Your task to perform on an android device: Is it going to rain this weekend? Image 0: 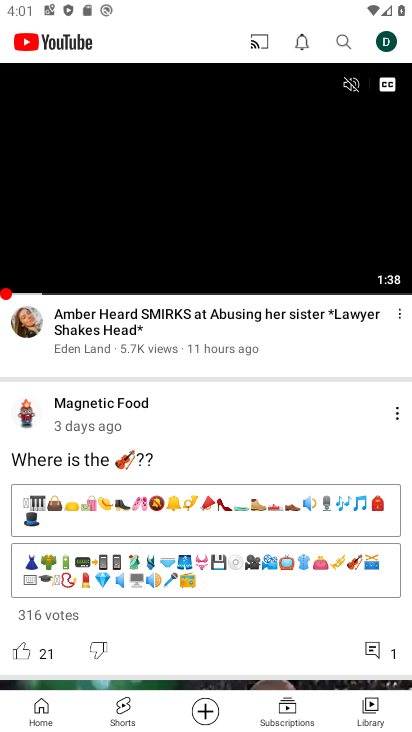
Step 0: press home button
Your task to perform on an android device: Is it going to rain this weekend? Image 1: 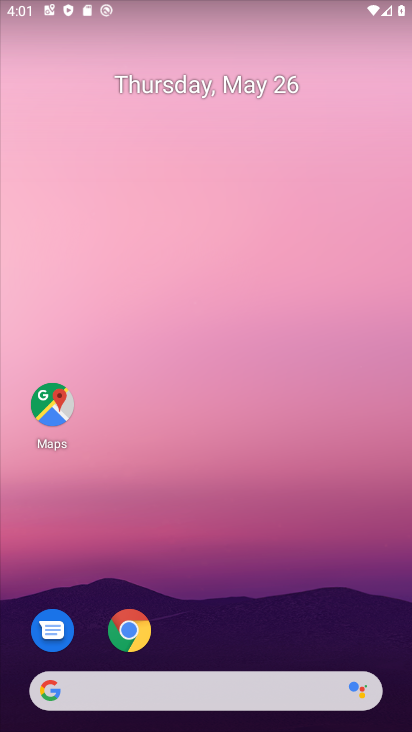
Step 1: drag from (235, 625) to (221, 230)
Your task to perform on an android device: Is it going to rain this weekend? Image 2: 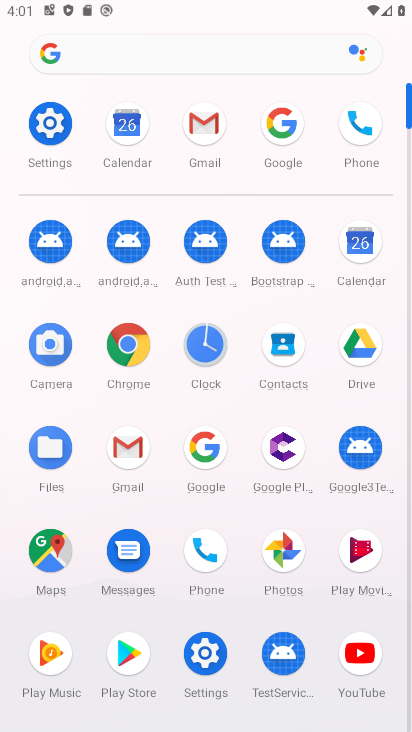
Step 2: click (278, 123)
Your task to perform on an android device: Is it going to rain this weekend? Image 3: 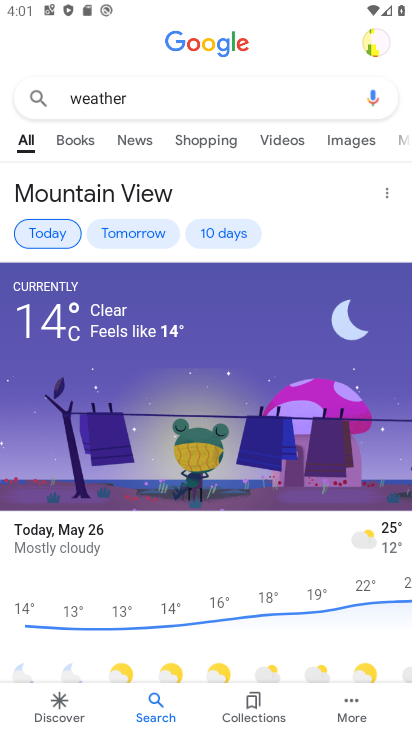
Step 3: click (229, 236)
Your task to perform on an android device: Is it going to rain this weekend? Image 4: 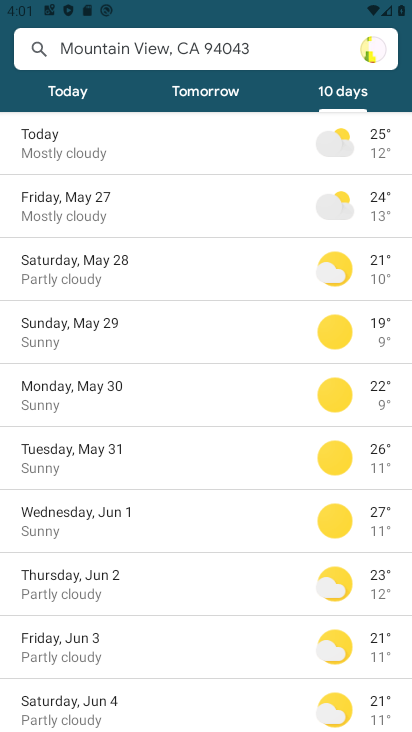
Step 4: task complete